Your task to perform on an android device: Open Wikipedia Image 0: 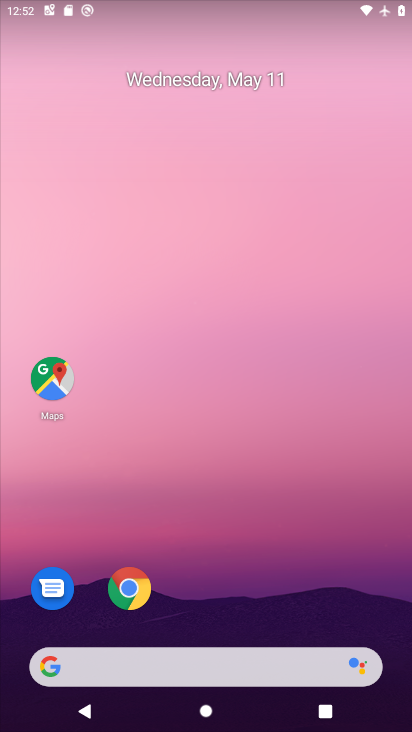
Step 0: click (128, 594)
Your task to perform on an android device: Open Wikipedia Image 1: 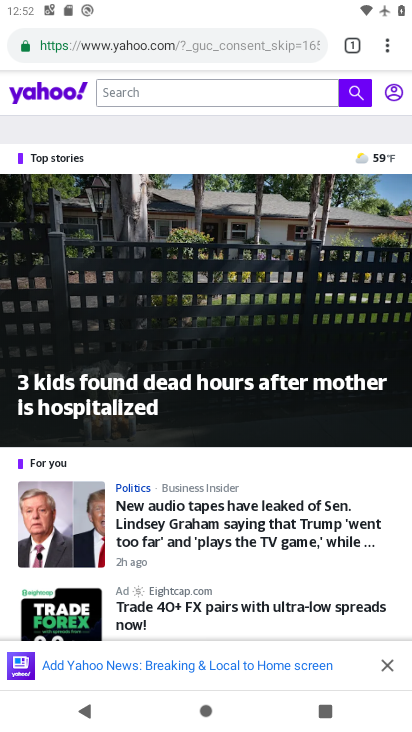
Step 1: click (347, 47)
Your task to perform on an android device: Open Wikipedia Image 2: 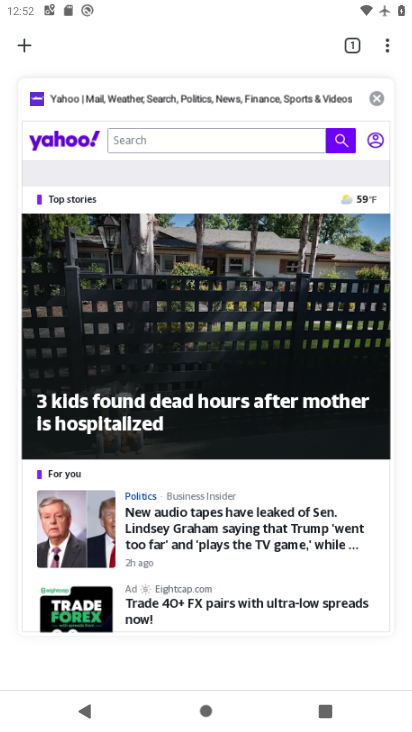
Step 2: click (378, 103)
Your task to perform on an android device: Open Wikipedia Image 3: 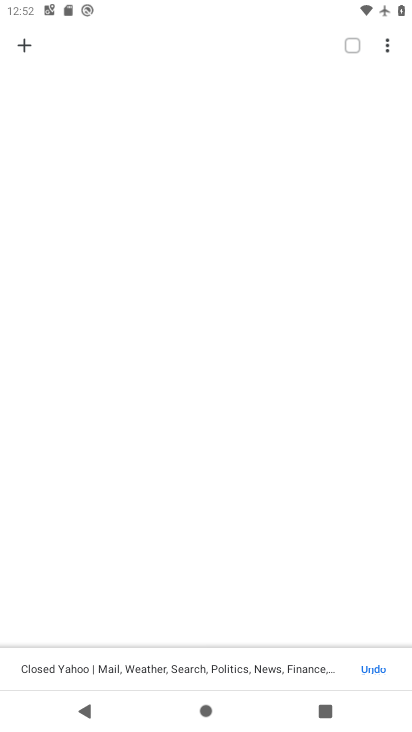
Step 3: click (27, 45)
Your task to perform on an android device: Open Wikipedia Image 4: 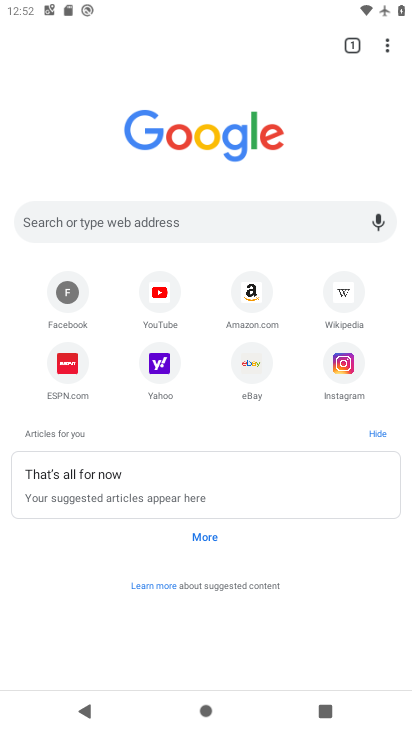
Step 4: click (346, 293)
Your task to perform on an android device: Open Wikipedia Image 5: 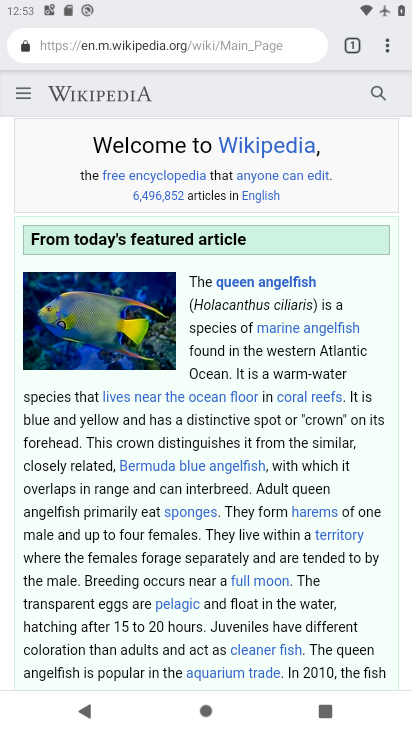
Step 5: task complete